Your task to perform on an android device: change your default location settings in chrome Image 0: 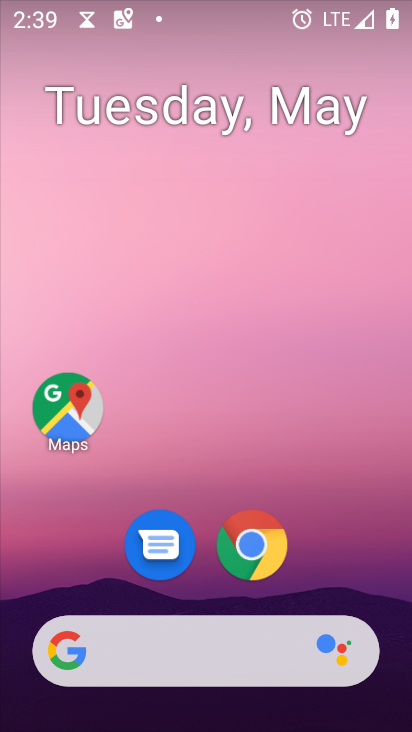
Step 0: drag from (356, 552) to (238, 11)
Your task to perform on an android device: change your default location settings in chrome Image 1: 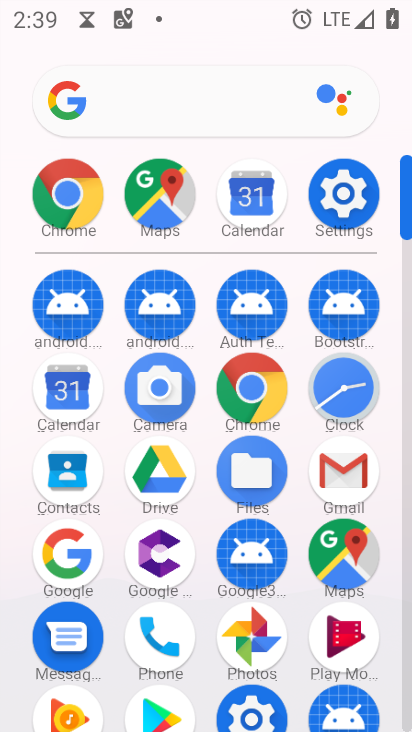
Step 1: drag from (16, 572) to (6, 310)
Your task to perform on an android device: change your default location settings in chrome Image 2: 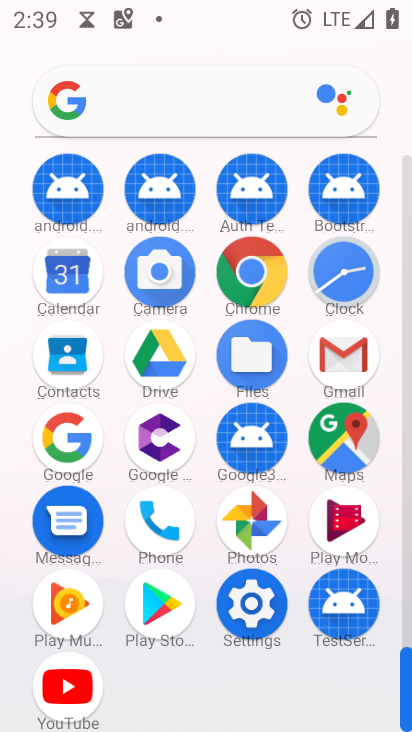
Step 2: click (248, 265)
Your task to perform on an android device: change your default location settings in chrome Image 3: 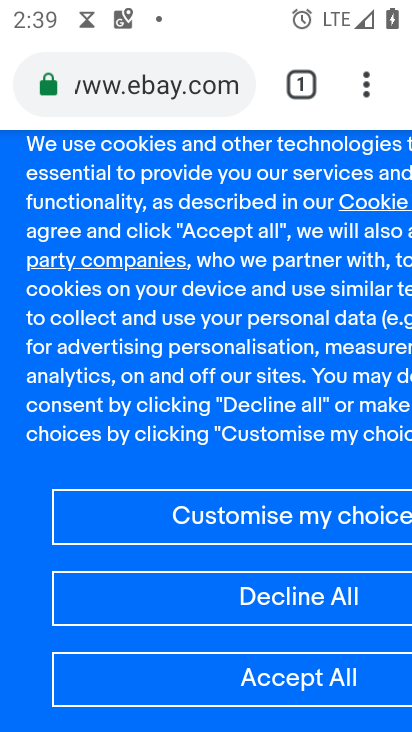
Step 3: drag from (367, 73) to (80, 573)
Your task to perform on an android device: change your default location settings in chrome Image 4: 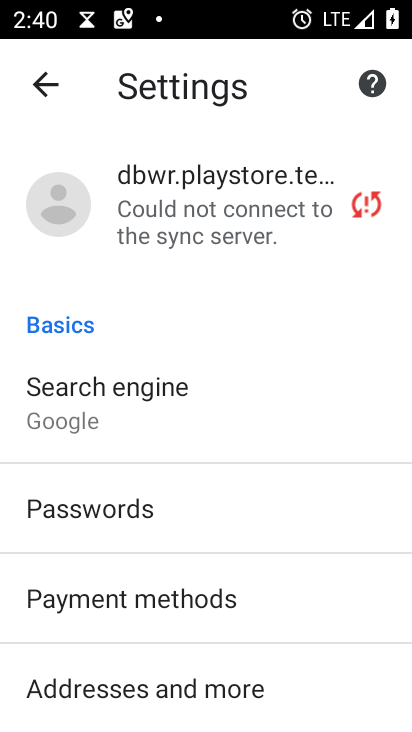
Step 4: drag from (294, 575) to (250, 195)
Your task to perform on an android device: change your default location settings in chrome Image 5: 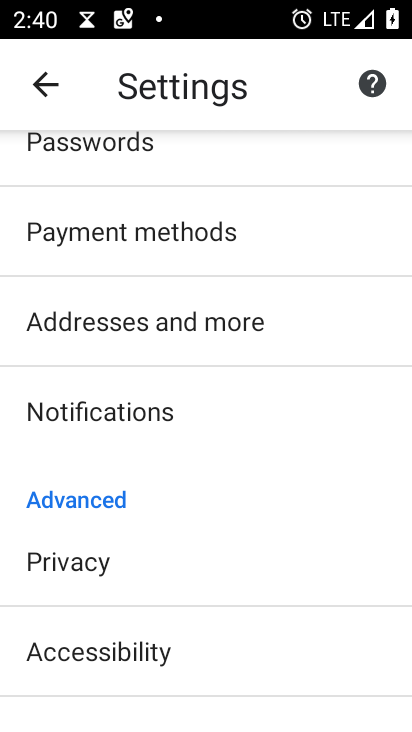
Step 5: drag from (244, 513) to (285, 170)
Your task to perform on an android device: change your default location settings in chrome Image 6: 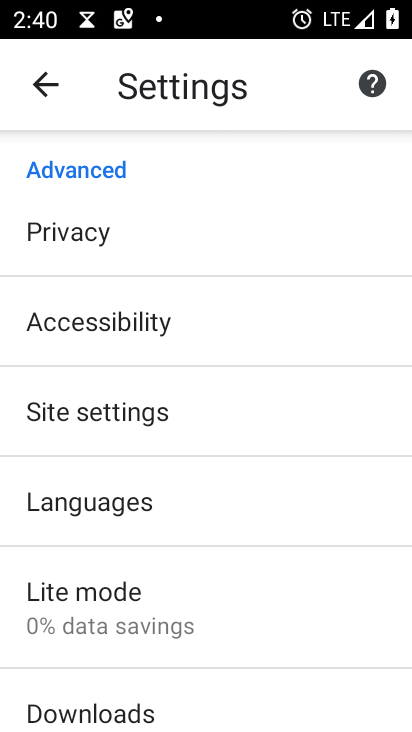
Step 6: click (145, 392)
Your task to perform on an android device: change your default location settings in chrome Image 7: 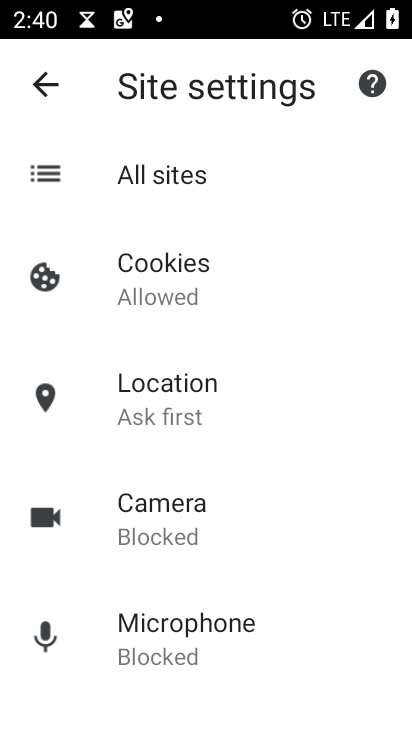
Step 7: drag from (256, 554) to (248, 277)
Your task to perform on an android device: change your default location settings in chrome Image 8: 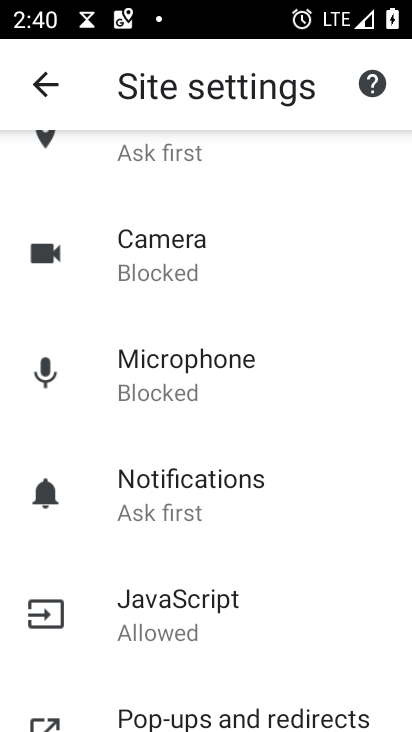
Step 8: drag from (289, 582) to (278, 277)
Your task to perform on an android device: change your default location settings in chrome Image 9: 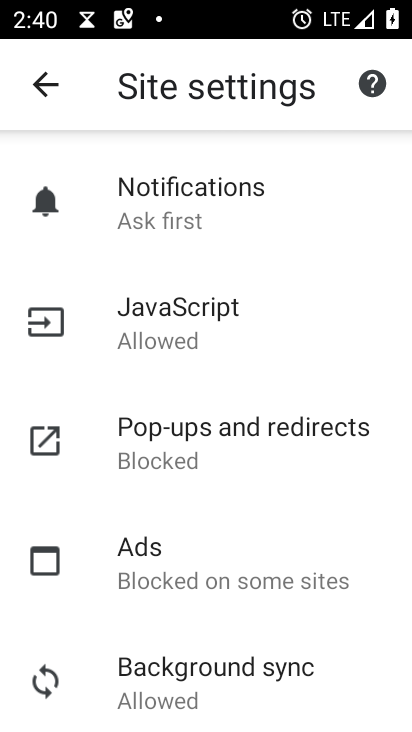
Step 9: drag from (265, 619) to (285, 228)
Your task to perform on an android device: change your default location settings in chrome Image 10: 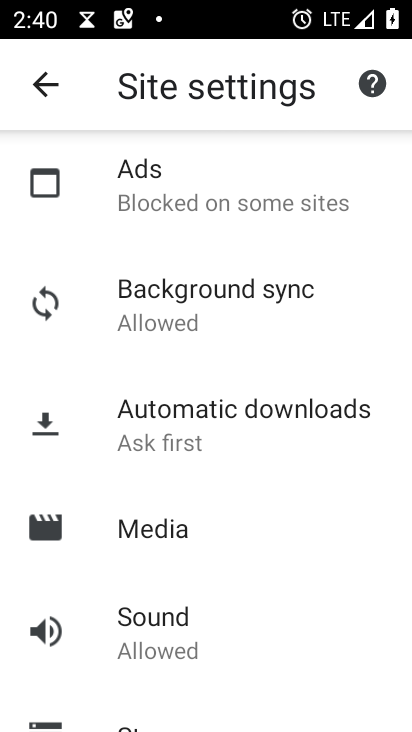
Step 10: drag from (260, 598) to (302, 182)
Your task to perform on an android device: change your default location settings in chrome Image 11: 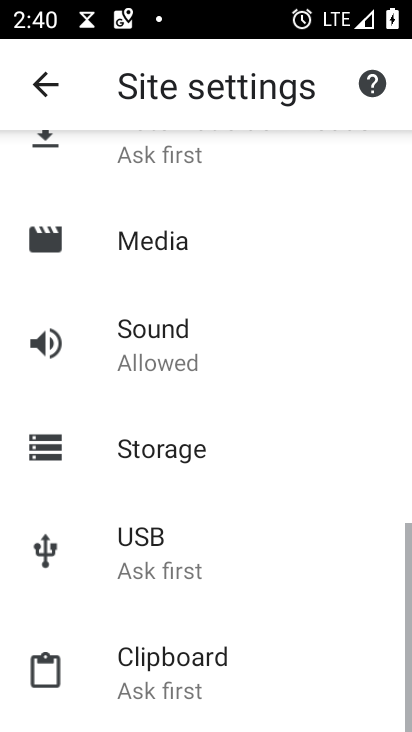
Step 11: drag from (292, 264) to (261, 666)
Your task to perform on an android device: change your default location settings in chrome Image 12: 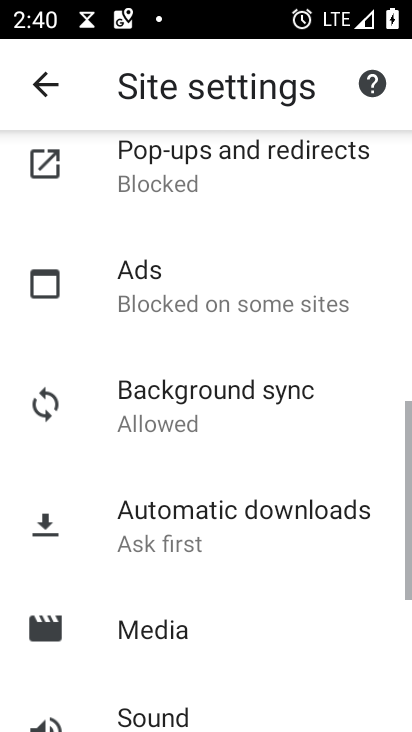
Step 12: drag from (272, 241) to (278, 606)
Your task to perform on an android device: change your default location settings in chrome Image 13: 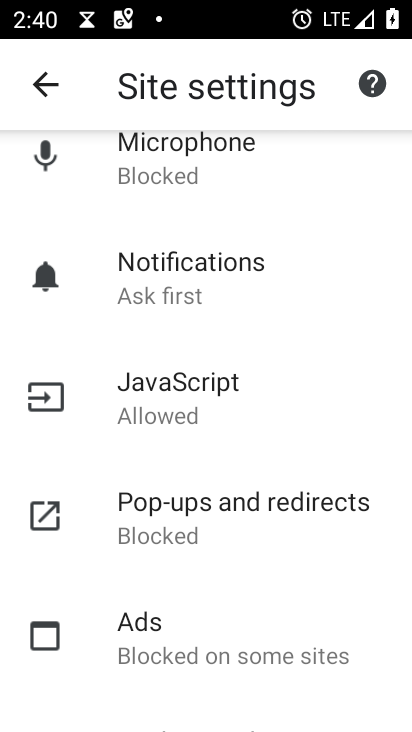
Step 13: drag from (255, 252) to (276, 638)
Your task to perform on an android device: change your default location settings in chrome Image 14: 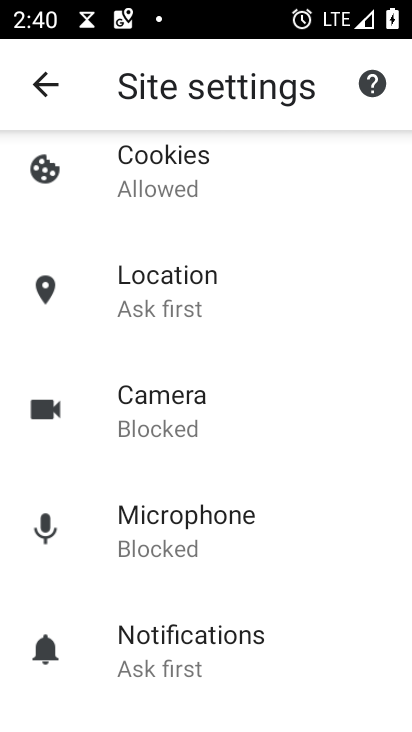
Step 14: click (212, 287)
Your task to perform on an android device: change your default location settings in chrome Image 15: 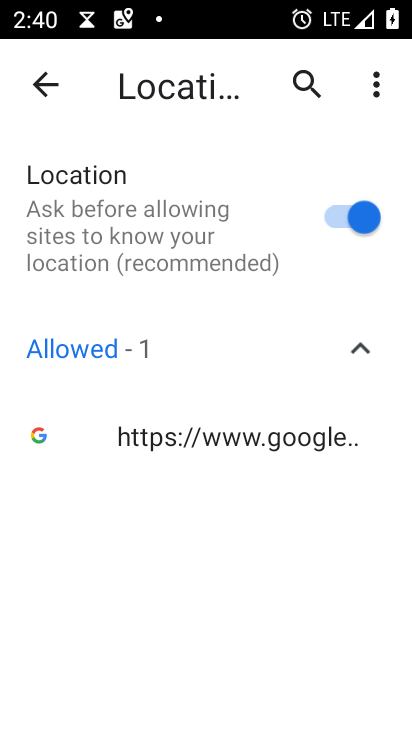
Step 15: click (336, 218)
Your task to perform on an android device: change your default location settings in chrome Image 16: 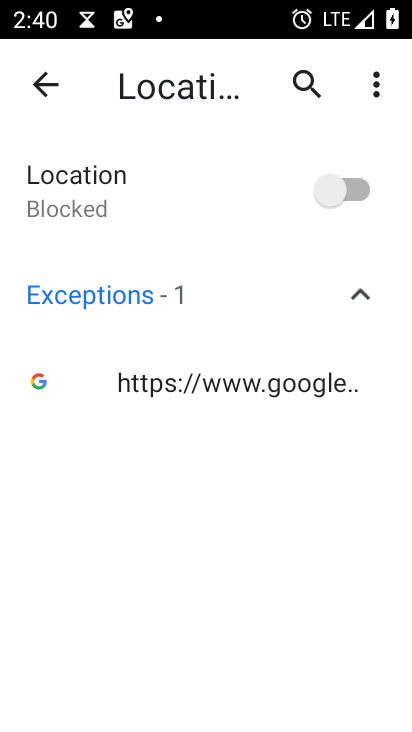
Step 16: task complete